Your task to perform on an android device: Go to Amazon Image 0: 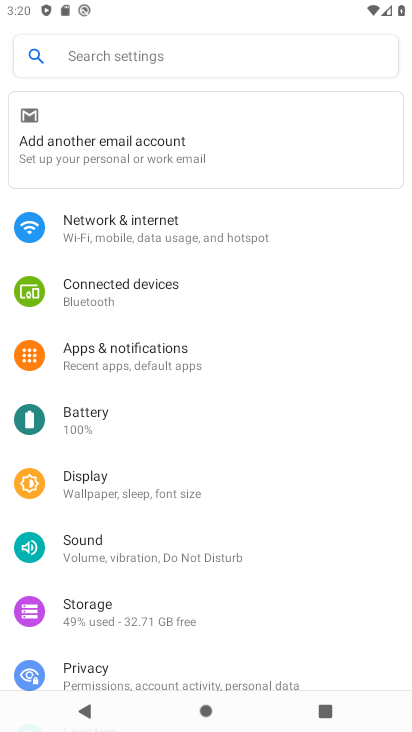
Step 0: press home button
Your task to perform on an android device: Go to Amazon Image 1: 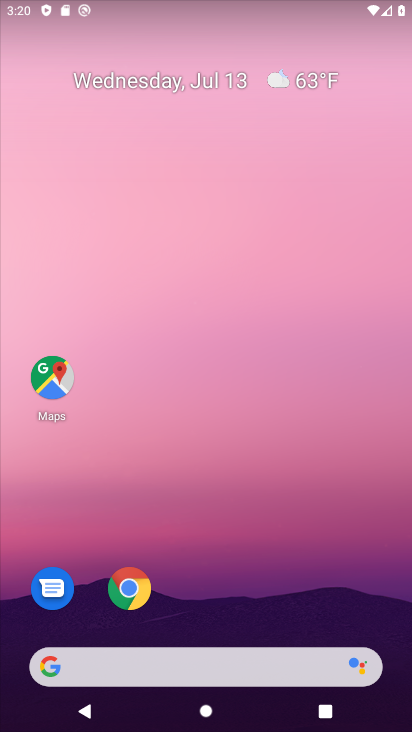
Step 1: drag from (247, 664) to (192, 0)
Your task to perform on an android device: Go to Amazon Image 2: 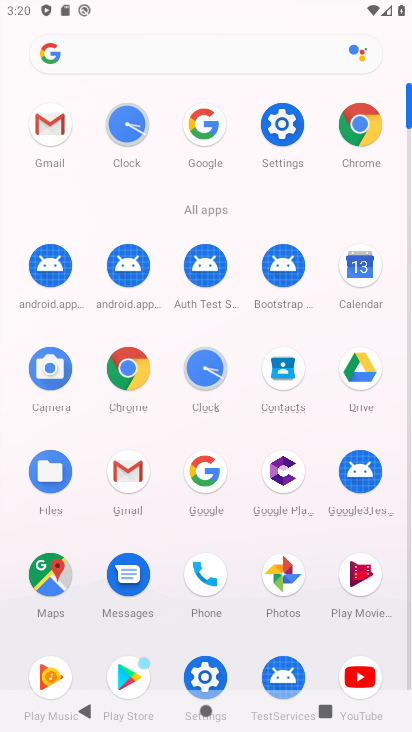
Step 2: click (129, 375)
Your task to perform on an android device: Go to Amazon Image 3: 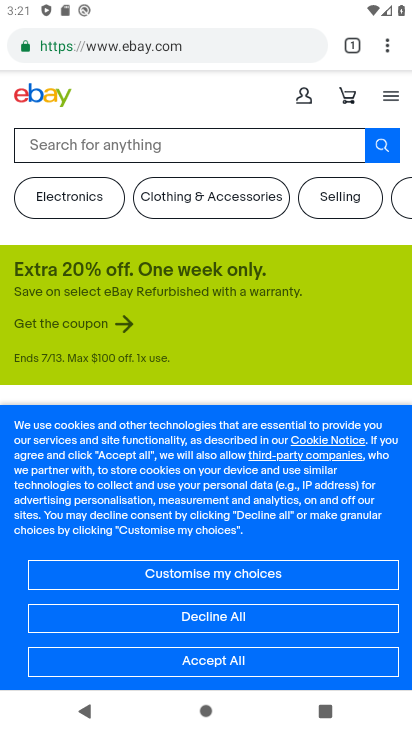
Step 3: click (81, 47)
Your task to perform on an android device: Go to Amazon Image 4: 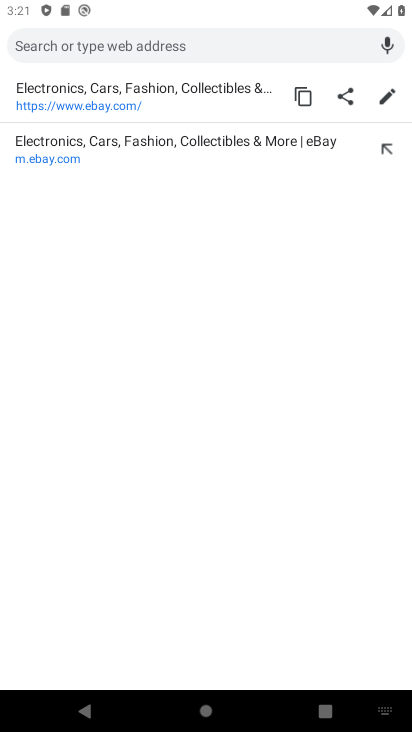
Step 4: press back button
Your task to perform on an android device: Go to Amazon Image 5: 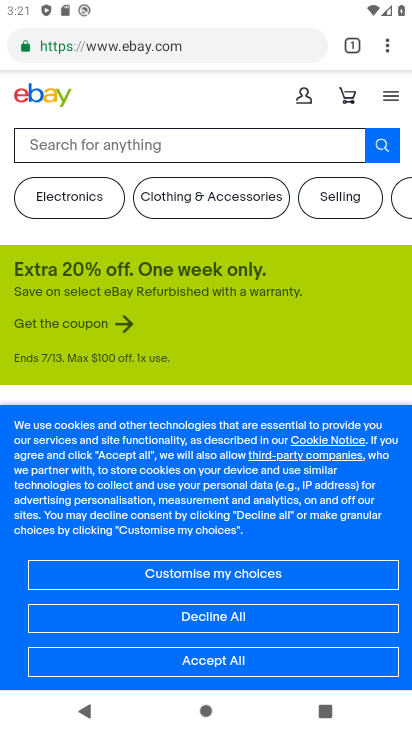
Step 5: press back button
Your task to perform on an android device: Go to Amazon Image 6: 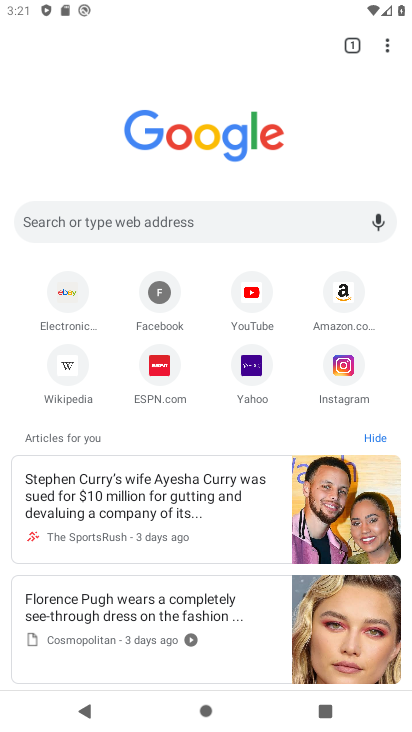
Step 6: click (353, 313)
Your task to perform on an android device: Go to Amazon Image 7: 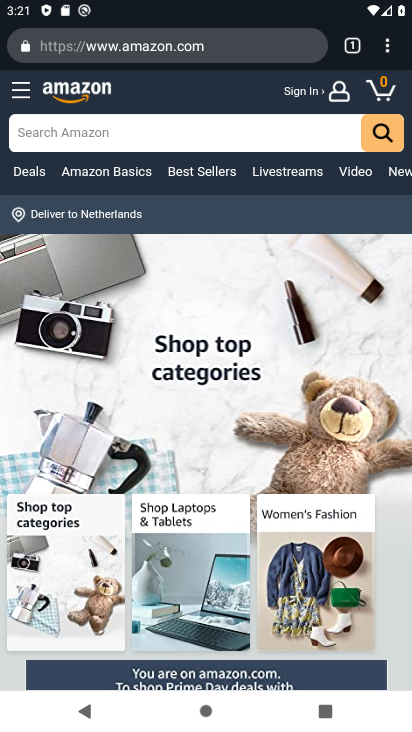
Step 7: task complete